Your task to perform on an android device: Go to Google maps Image 0: 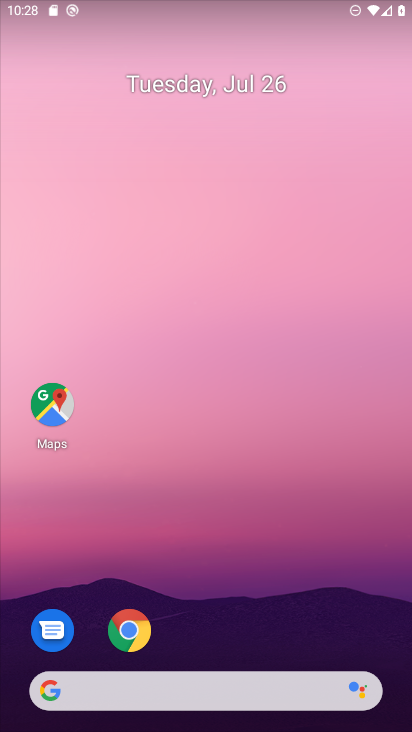
Step 0: click (49, 408)
Your task to perform on an android device: Go to Google maps Image 1: 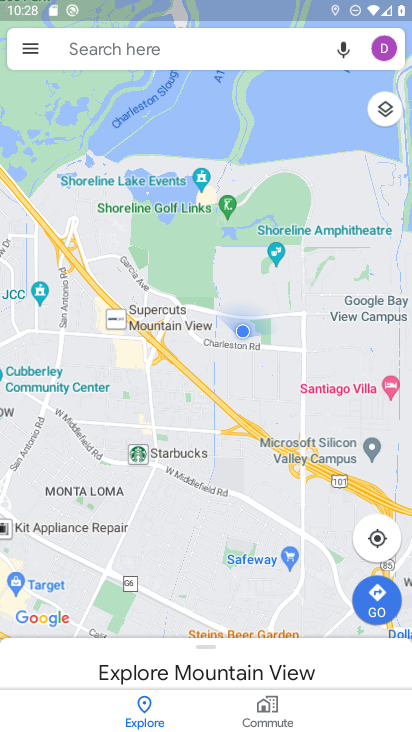
Step 1: task complete